Your task to perform on an android device: Open Google Chrome and click the shortcut for Amazon.com Image 0: 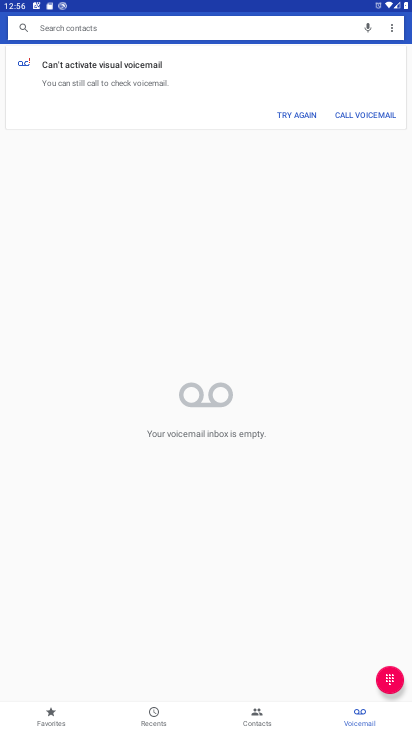
Step 0: press home button
Your task to perform on an android device: Open Google Chrome and click the shortcut for Amazon.com Image 1: 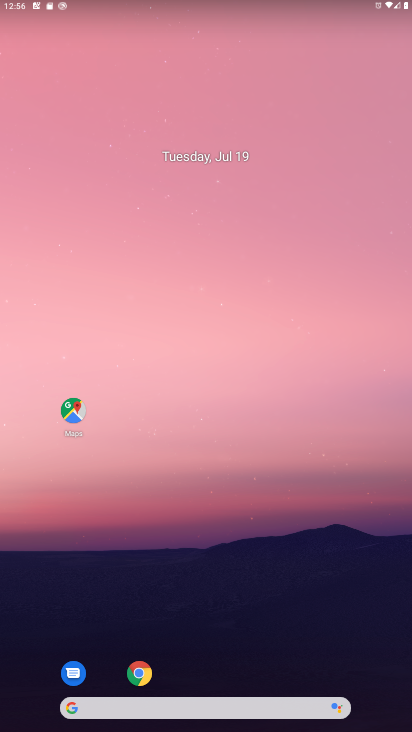
Step 1: click (155, 676)
Your task to perform on an android device: Open Google Chrome and click the shortcut for Amazon.com Image 2: 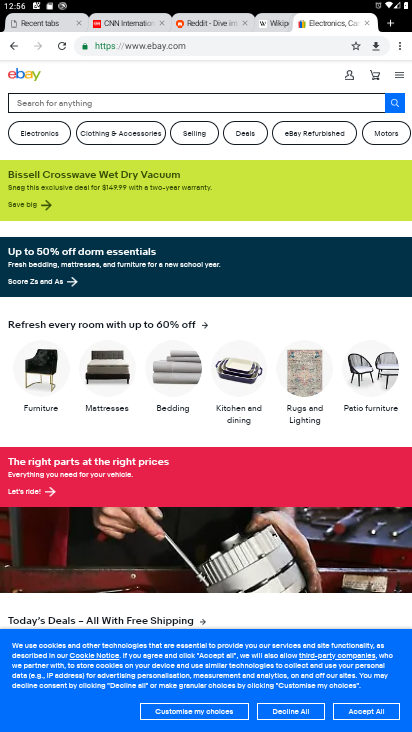
Step 2: click (387, 15)
Your task to perform on an android device: Open Google Chrome and click the shortcut for Amazon.com Image 3: 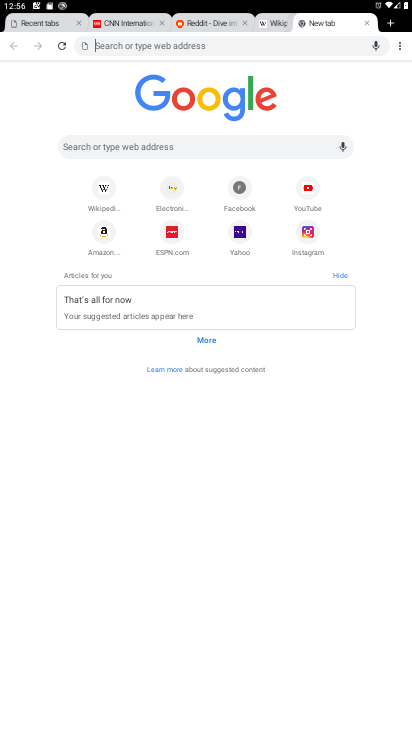
Step 3: click (111, 242)
Your task to perform on an android device: Open Google Chrome and click the shortcut for Amazon.com Image 4: 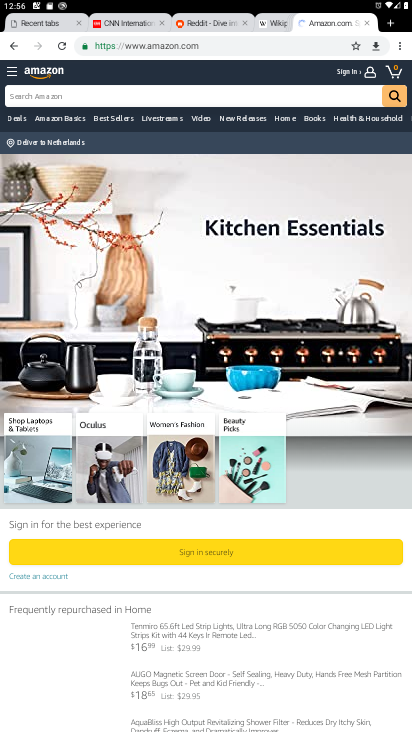
Step 4: task complete